Your task to perform on an android device: Is it going to rain this weekend? Image 0: 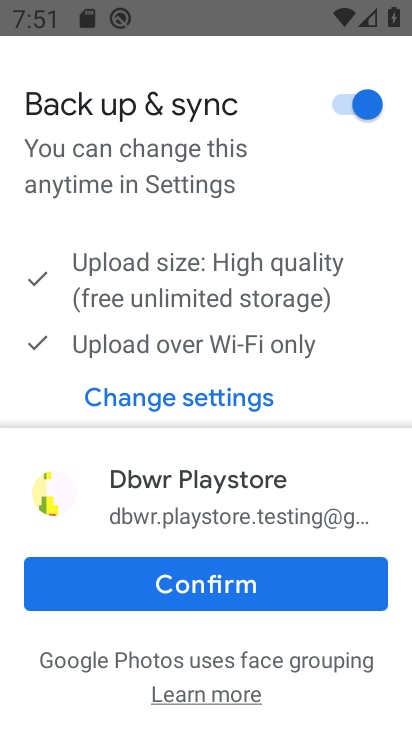
Step 0: press home button
Your task to perform on an android device: Is it going to rain this weekend? Image 1: 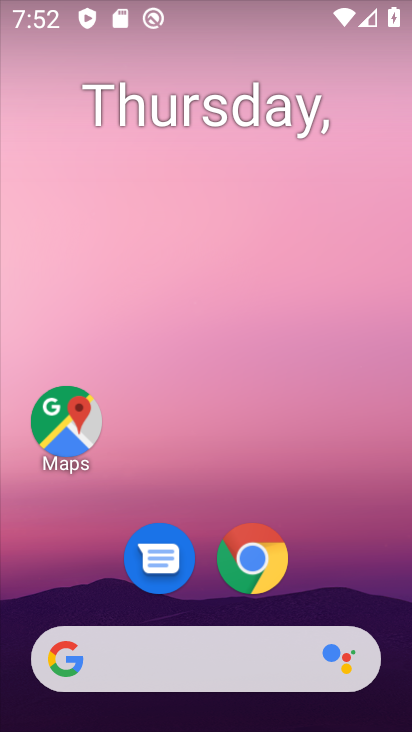
Step 1: click (247, 558)
Your task to perform on an android device: Is it going to rain this weekend? Image 2: 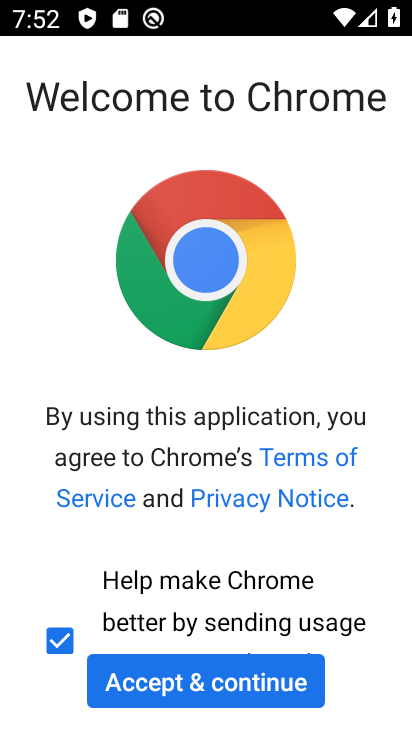
Step 2: click (214, 665)
Your task to perform on an android device: Is it going to rain this weekend? Image 3: 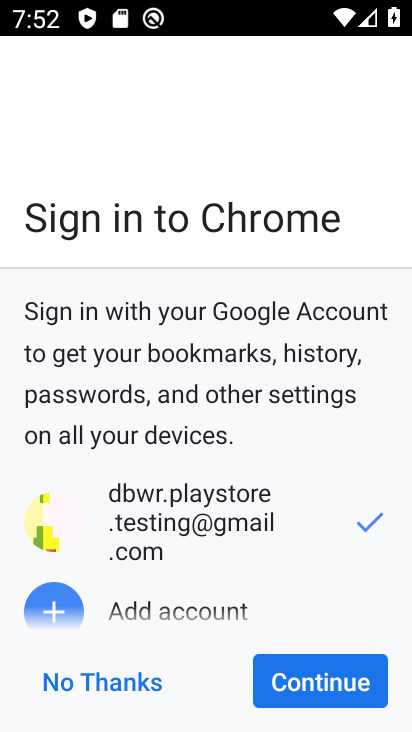
Step 3: click (310, 682)
Your task to perform on an android device: Is it going to rain this weekend? Image 4: 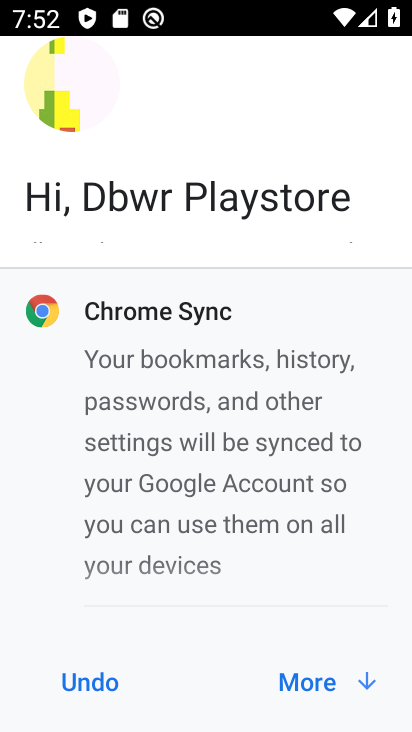
Step 4: click (327, 679)
Your task to perform on an android device: Is it going to rain this weekend? Image 5: 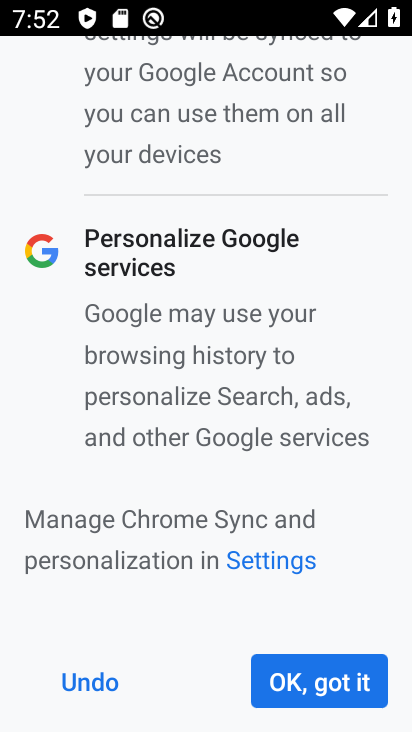
Step 5: click (340, 690)
Your task to perform on an android device: Is it going to rain this weekend? Image 6: 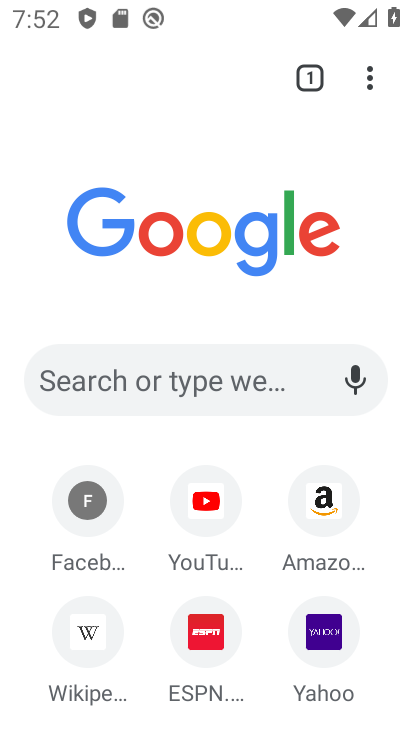
Step 6: click (149, 388)
Your task to perform on an android device: Is it going to rain this weekend? Image 7: 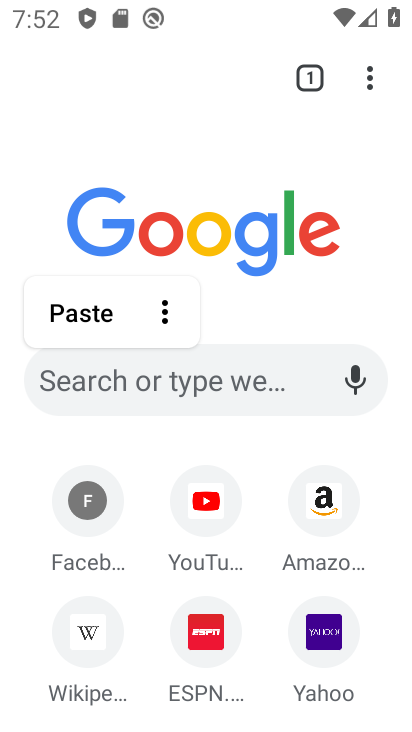
Step 7: click (114, 386)
Your task to perform on an android device: Is it going to rain this weekend? Image 8: 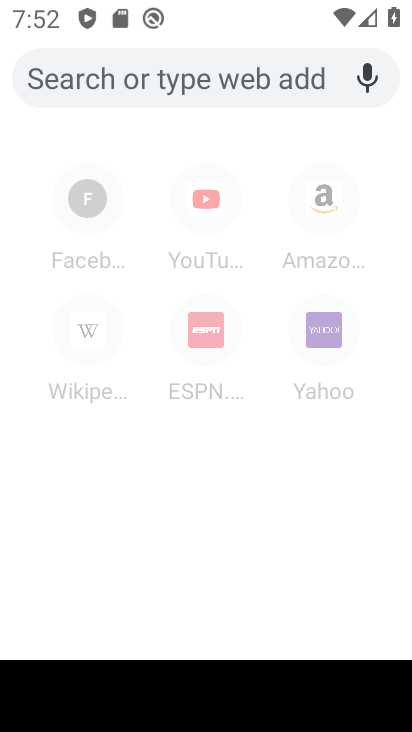
Step 8: type "is it going to rain this weekend?"
Your task to perform on an android device: Is it going to rain this weekend? Image 9: 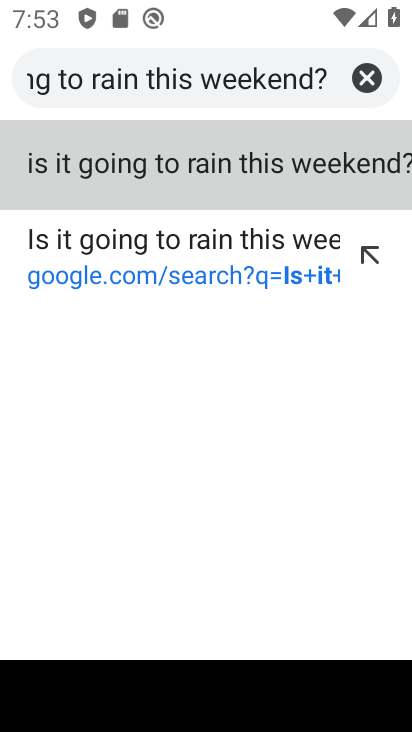
Step 9: click (195, 167)
Your task to perform on an android device: Is it going to rain this weekend? Image 10: 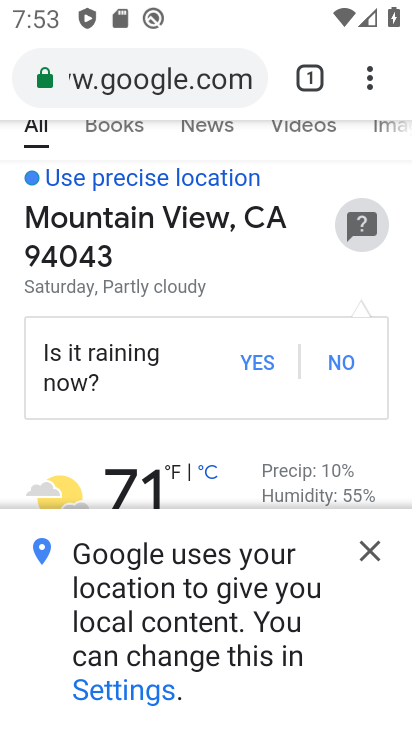
Step 10: task complete